Your task to perform on an android device: toggle improve location accuracy Image 0: 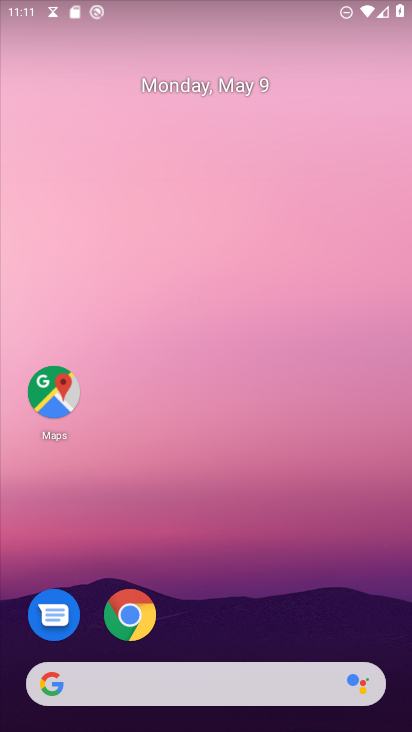
Step 0: drag from (203, 726) to (193, 173)
Your task to perform on an android device: toggle improve location accuracy Image 1: 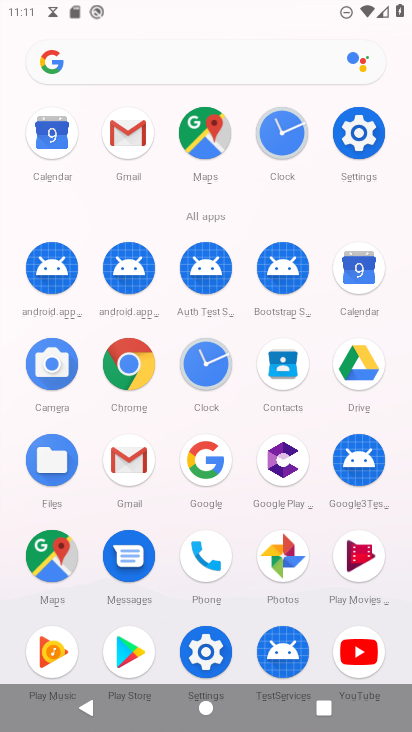
Step 1: click (362, 137)
Your task to perform on an android device: toggle improve location accuracy Image 2: 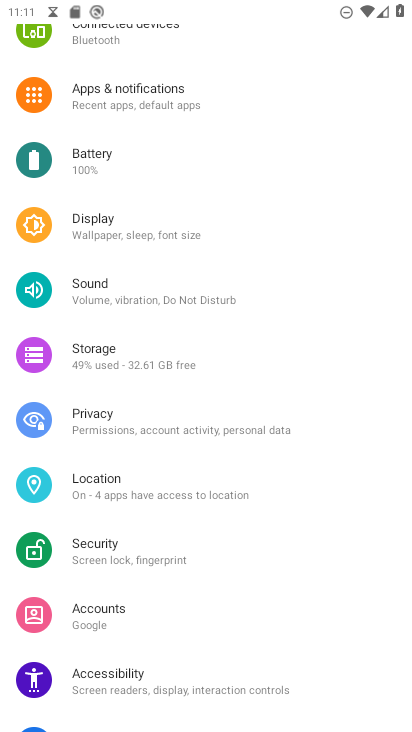
Step 2: click (108, 480)
Your task to perform on an android device: toggle improve location accuracy Image 3: 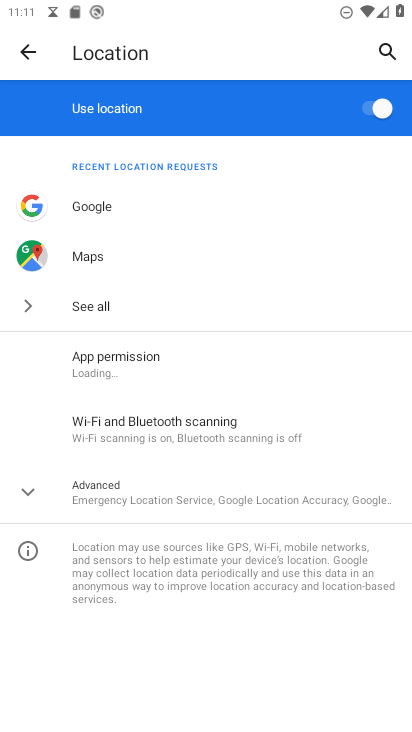
Step 3: click (103, 493)
Your task to perform on an android device: toggle improve location accuracy Image 4: 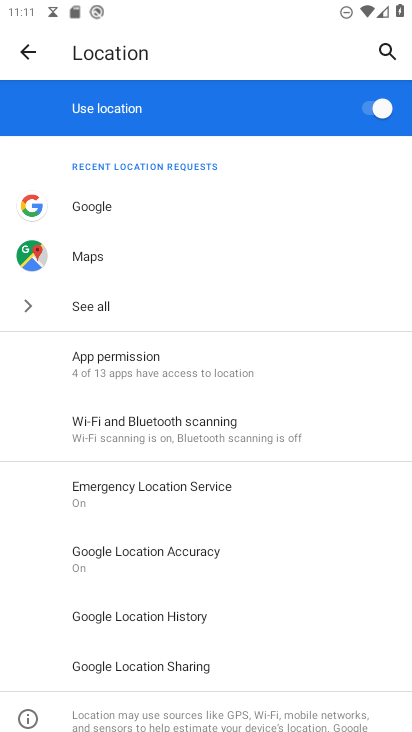
Step 4: click (178, 552)
Your task to perform on an android device: toggle improve location accuracy Image 5: 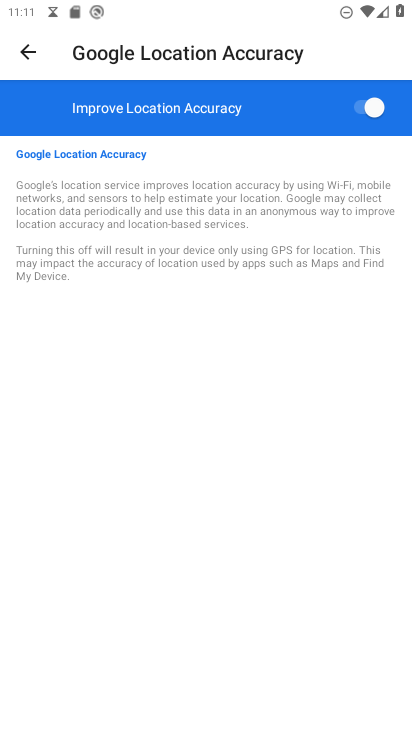
Step 5: click (364, 108)
Your task to perform on an android device: toggle improve location accuracy Image 6: 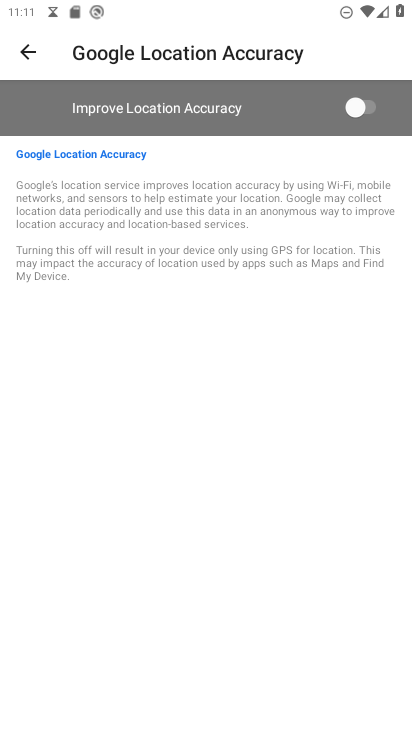
Step 6: task complete